Your task to perform on an android device: Open the map Image 0: 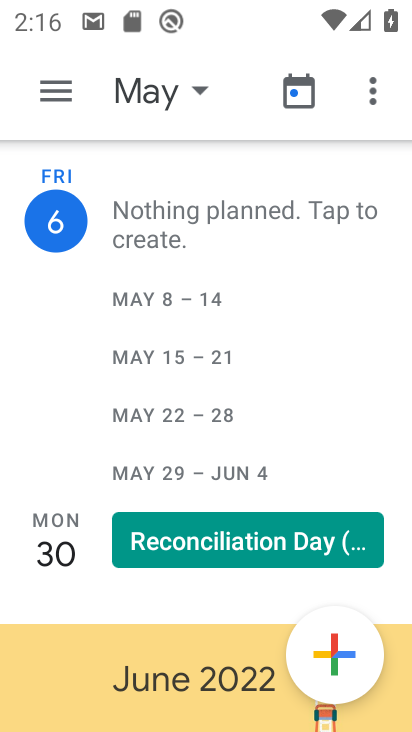
Step 0: press home button
Your task to perform on an android device: Open the map Image 1: 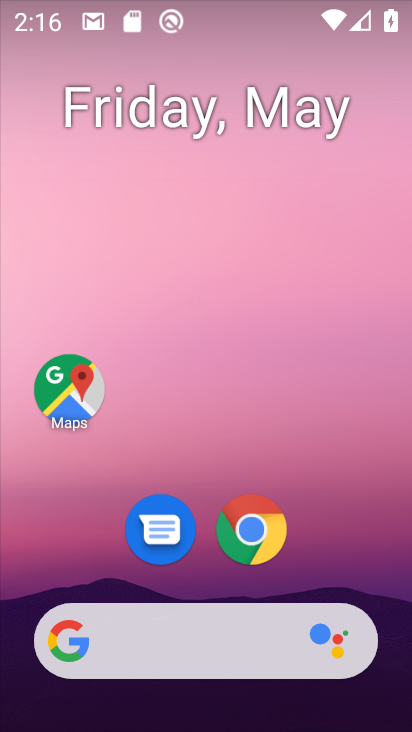
Step 1: click (75, 401)
Your task to perform on an android device: Open the map Image 2: 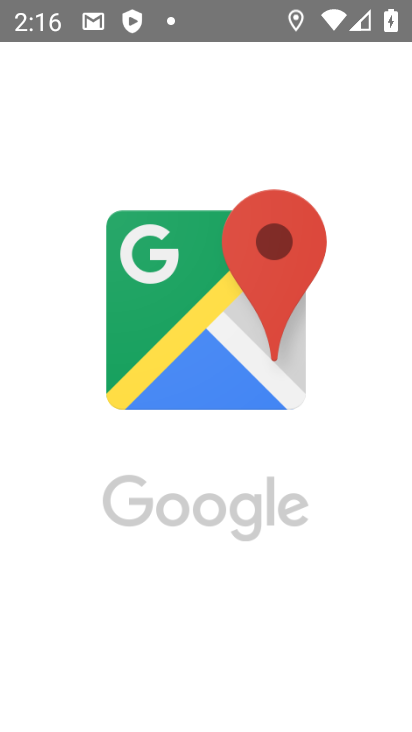
Step 2: task complete